Your task to perform on an android device: add a contact Image 0: 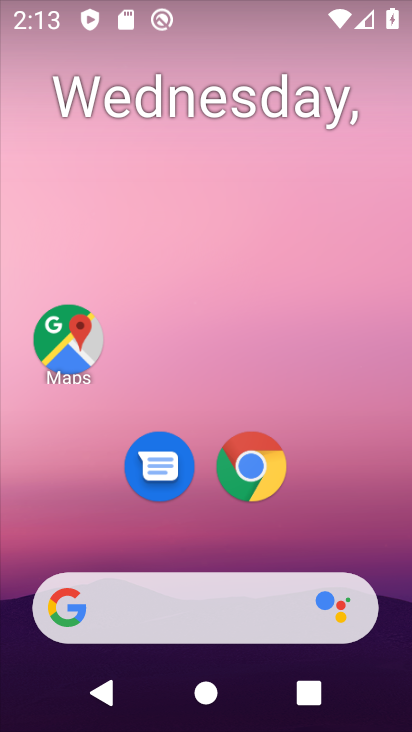
Step 0: drag from (355, 545) to (271, 13)
Your task to perform on an android device: add a contact Image 1: 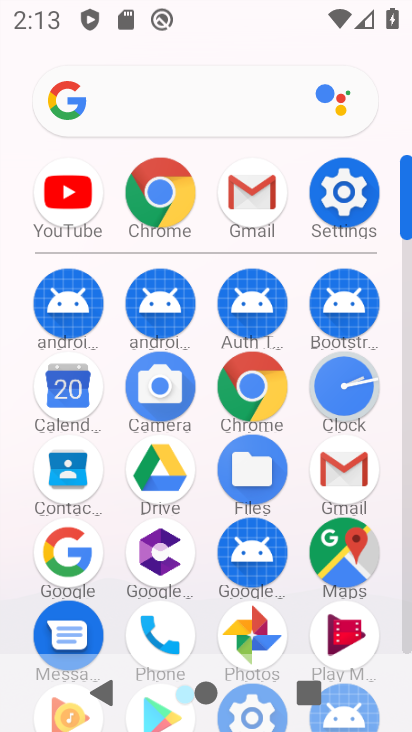
Step 1: drag from (19, 562) to (0, 243)
Your task to perform on an android device: add a contact Image 2: 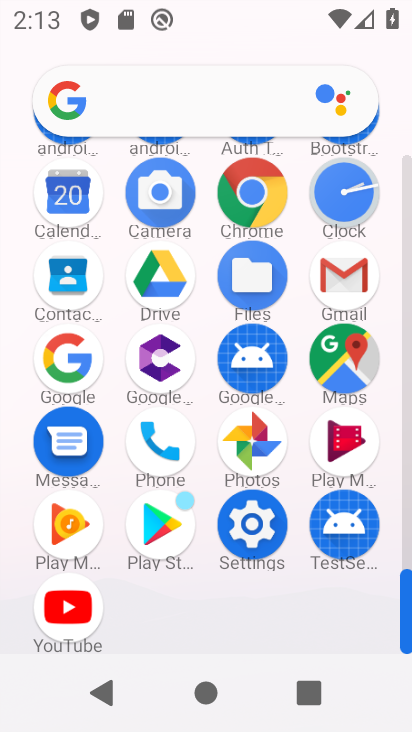
Step 2: drag from (0, 258) to (6, 414)
Your task to perform on an android device: add a contact Image 3: 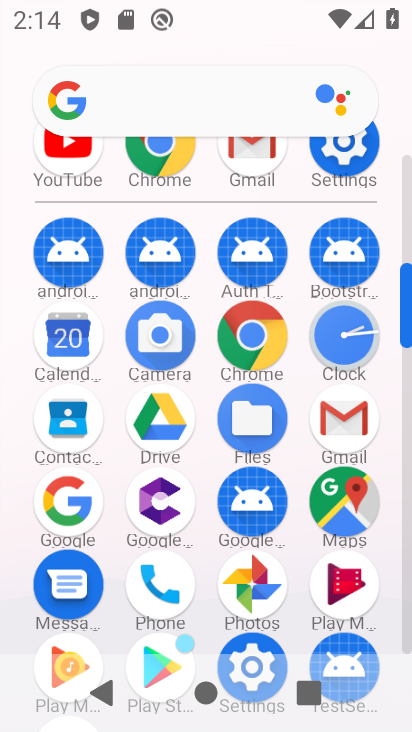
Step 3: click (158, 578)
Your task to perform on an android device: add a contact Image 4: 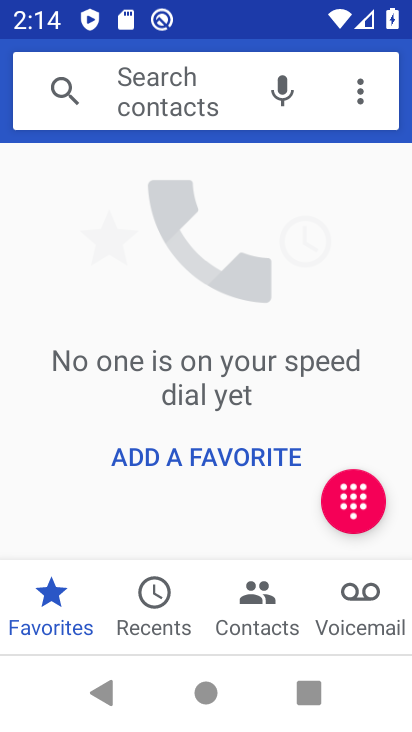
Step 4: click (242, 582)
Your task to perform on an android device: add a contact Image 5: 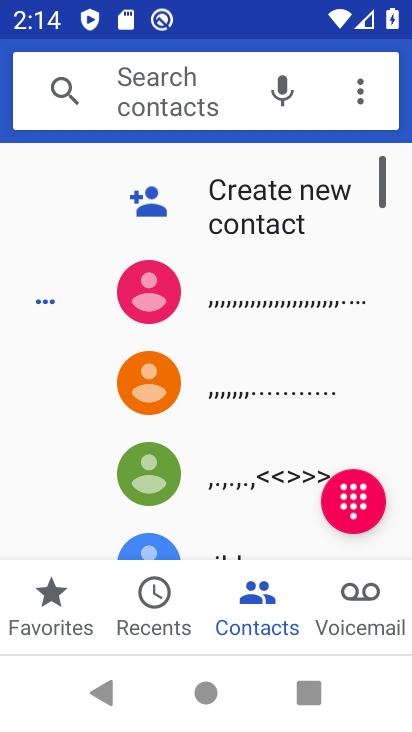
Step 5: click (276, 227)
Your task to perform on an android device: add a contact Image 6: 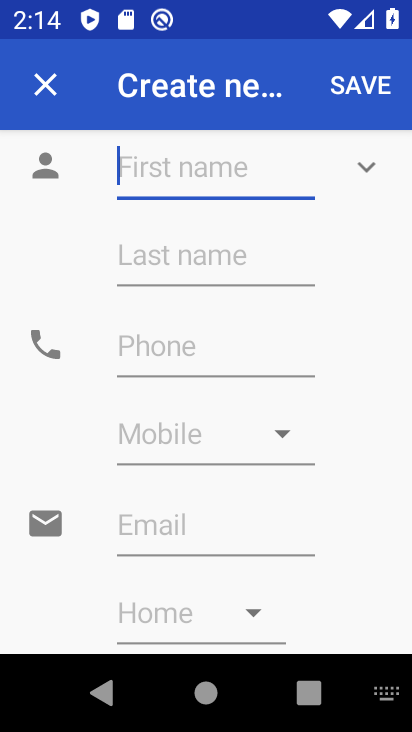
Step 6: type "llkjj"
Your task to perform on an android device: add a contact Image 7: 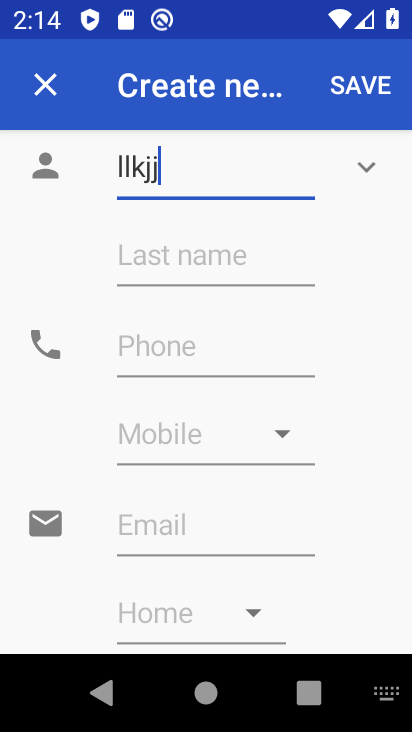
Step 7: type ""
Your task to perform on an android device: add a contact Image 8: 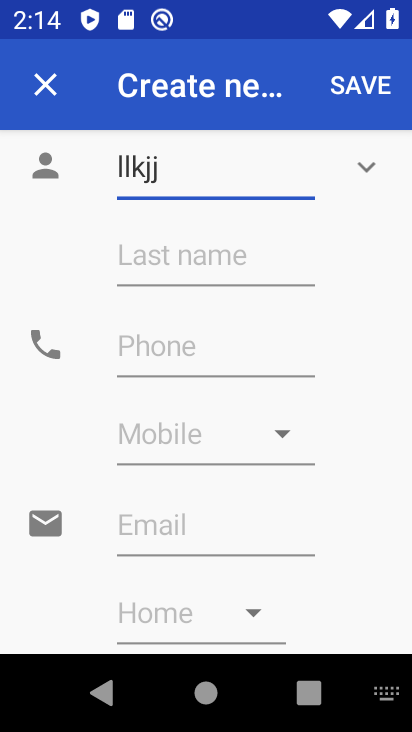
Step 8: click (161, 338)
Your task to perform on an android device: add a contact Image 9: 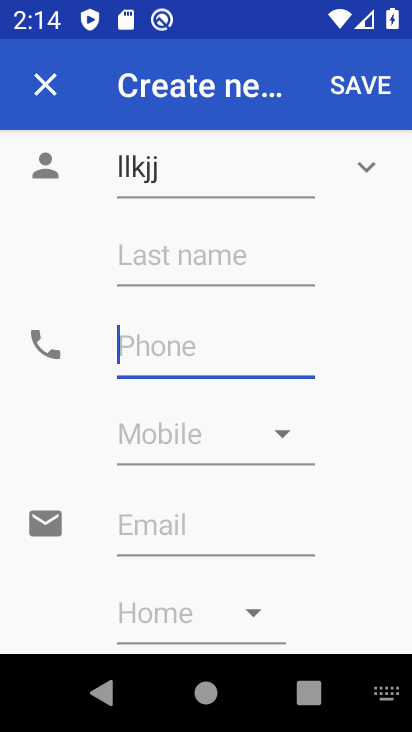
Step 9: type "67787776557"
Your task to perform on an android device: add a contact Image 10: 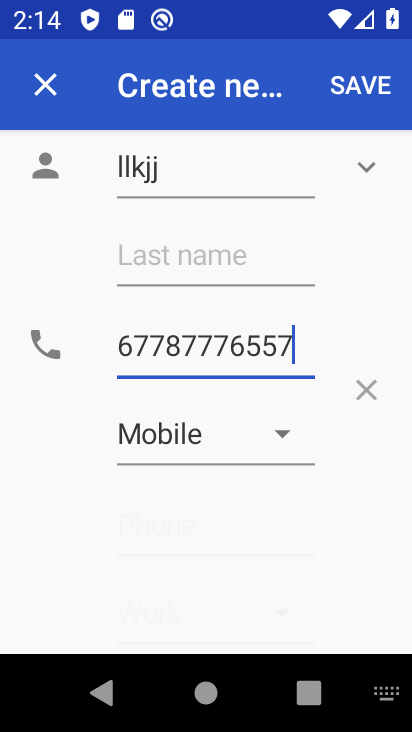
Step 10: type ""
Your task to perform on an android device: add a contact Image 11: 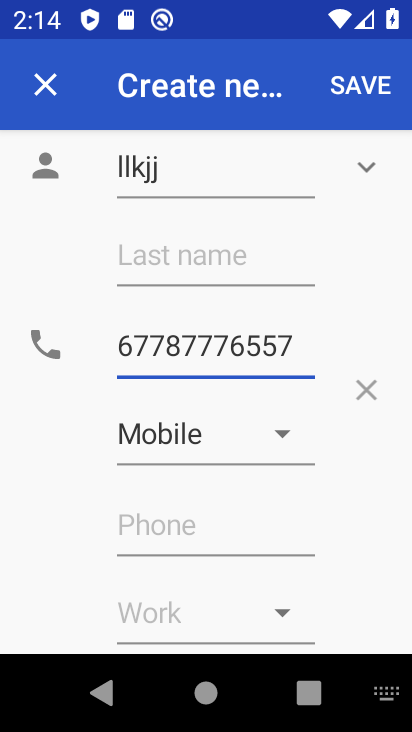
Step 11: click (351, 82)
Your task to perform on an android device: add a contact Image 12: 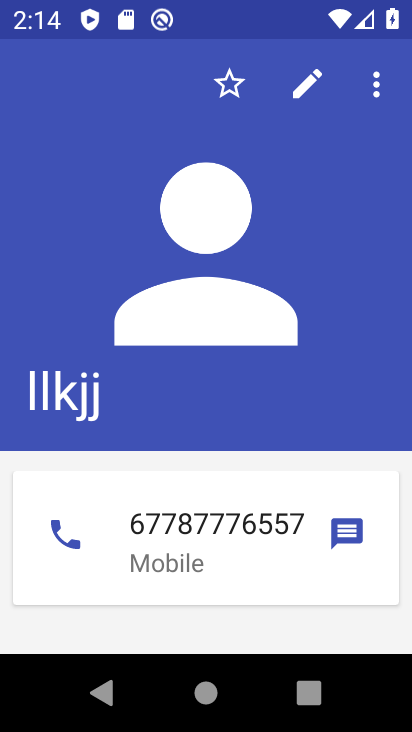
Step 12: task complete